Your task to perform on an android device: Search for Mexican restaurants on Maps Image 0: 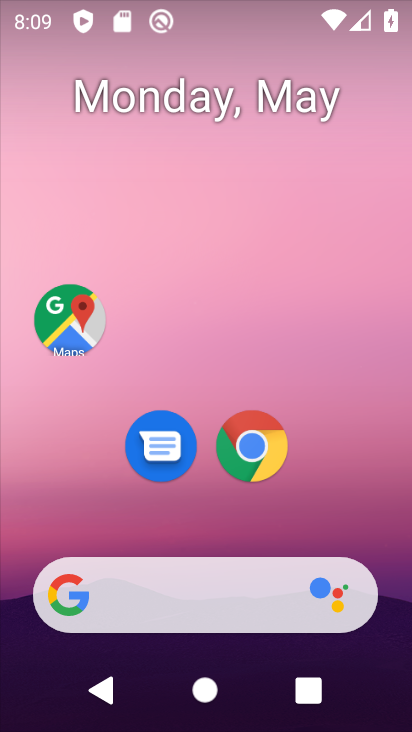
Step 0: click (79, 324)
Your task to perform on an android device: Search for Mexican restaurants on Maps Image 1: 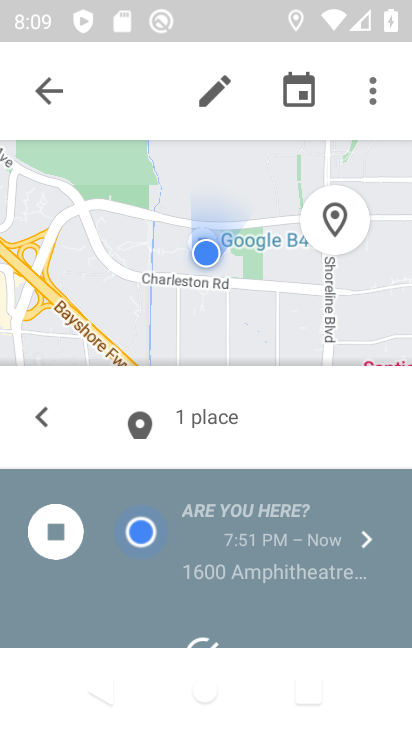
Step 1: click (52, 101)
Your task to perform on an android device: Search for Mexican restaurants on Maps Image 2: 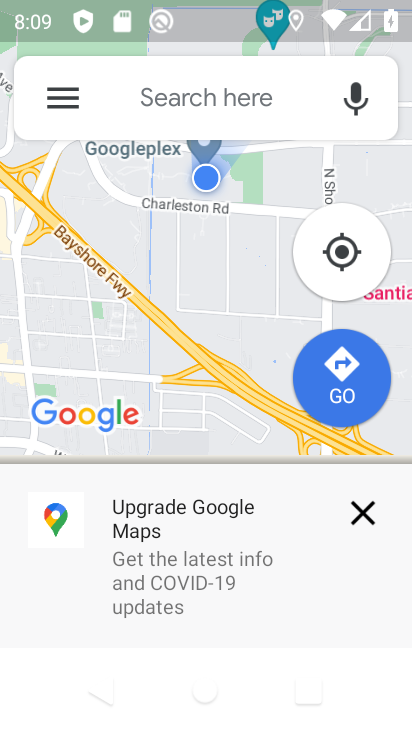
Step 2: click (212, 117)
Your task to perform on an android device: Search for Mexican restaurants on Maps Image 3: 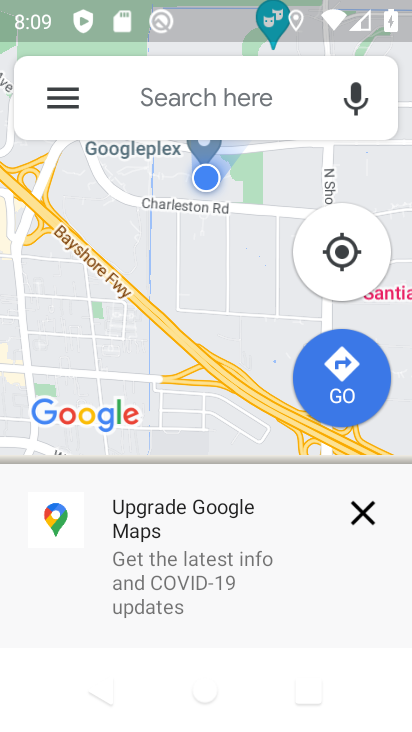
Step 3: click (212, 117)
Your task to perform on an android device: Search for Mexican restaurants on Maps Image 4: 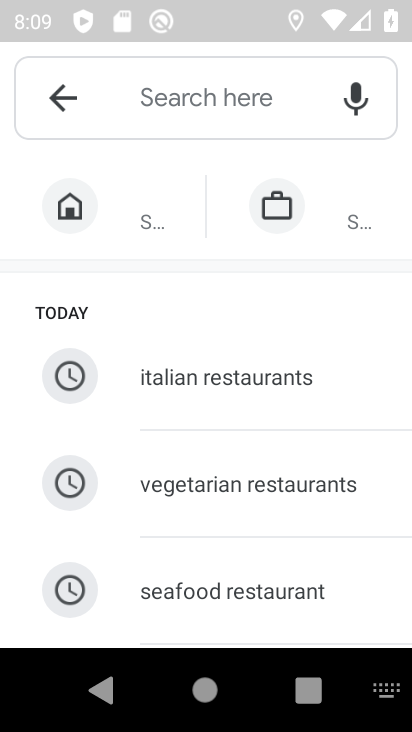
Step 4: drag from (292, 530) to (276, 119)
Your task to perform on an android device: Search for Mexican restaurants on Maps Image 5: 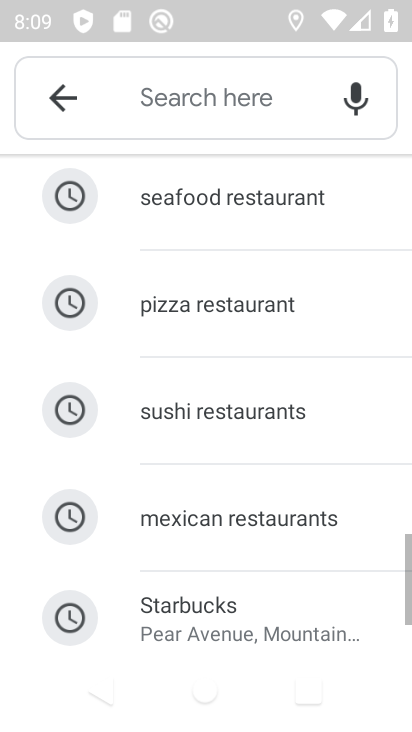
Step 5: drag from (263, 596) to (233, 259)
Your task to perform on an android device: Search for Mexican restaurants on Maps Image 6: 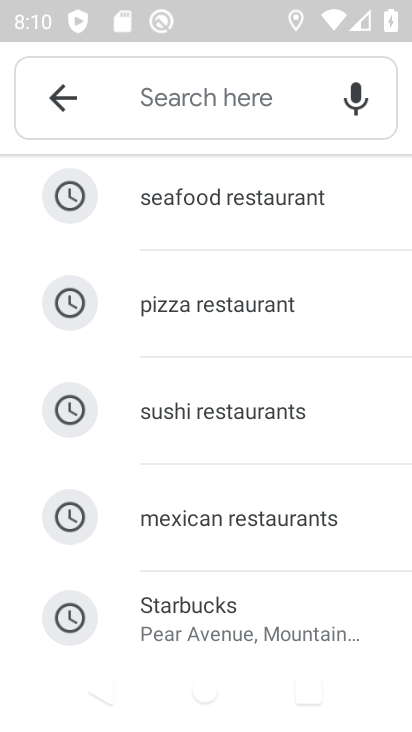
Step 6: click (245, 505)
Your task to perform on an android device: Search for Mexican restaurants on Maps Image 7: 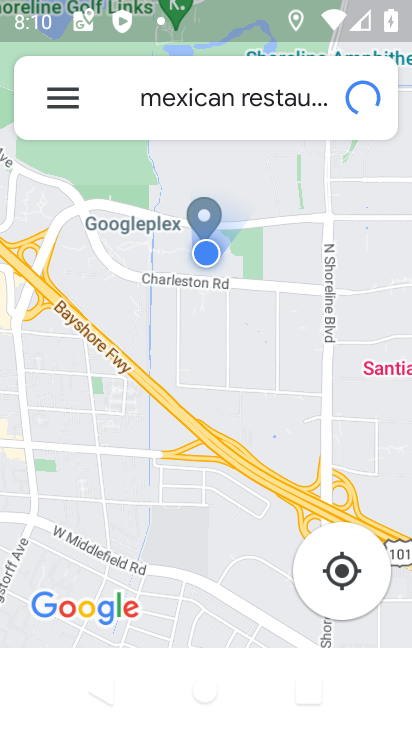
Step 7: task complete